Your task to perform on an android device: toggle notifications settings in the gmail app Image 0: 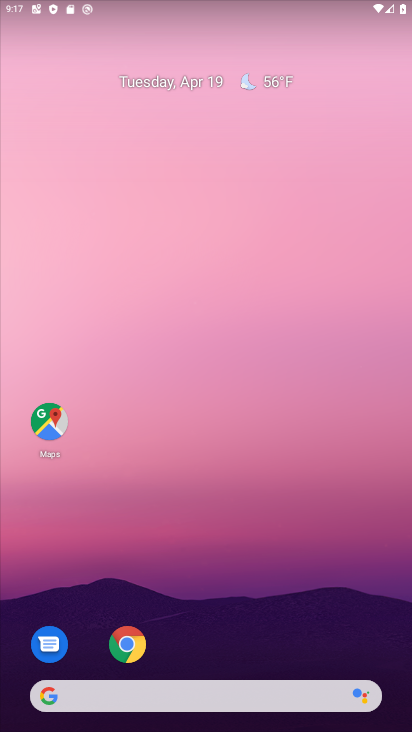
Step 0: drag from (197, 555) to (188, 207)
Your task to perform on an android device: toggle notifications settings in the gmail app Image 1: 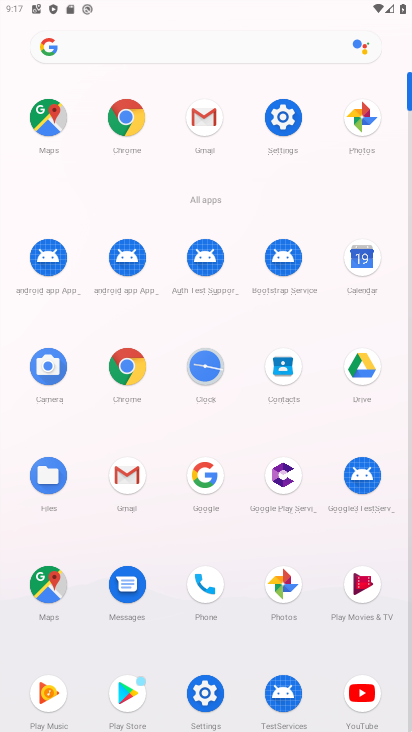
Step 1: click (198, 105)
Your task to perform on an android device: toggle notifications settings in the gmail app Image 2: 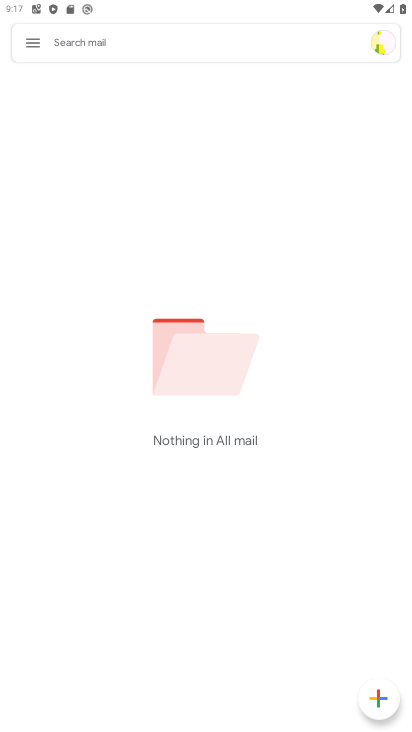
Step 2: click (34, 48)
Your task to perform on an android device: toggle notifications settings in the gmail app Image 3: 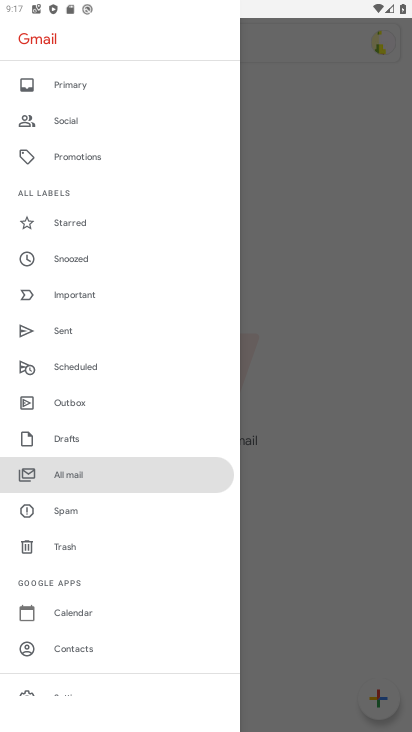
Step 3: drag from (106, 613) to (115, 412)
Your task to perform on an android device: toggle notifications settings in the gmail app Image 4: 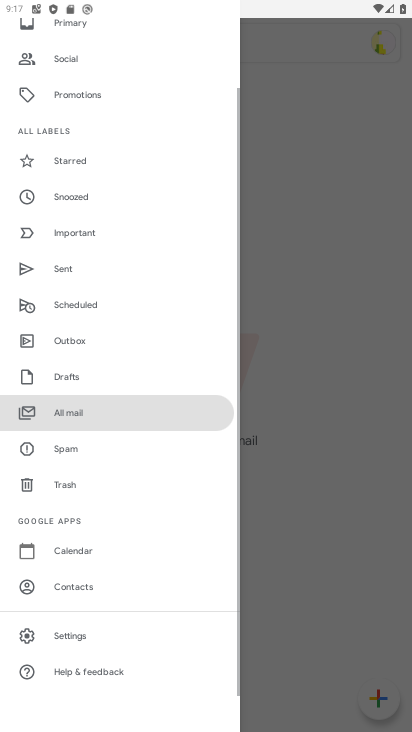
Step 4: click (53, 636)
Your task to perform on an android device: toggle notifications settings in the gmail app Image 5: 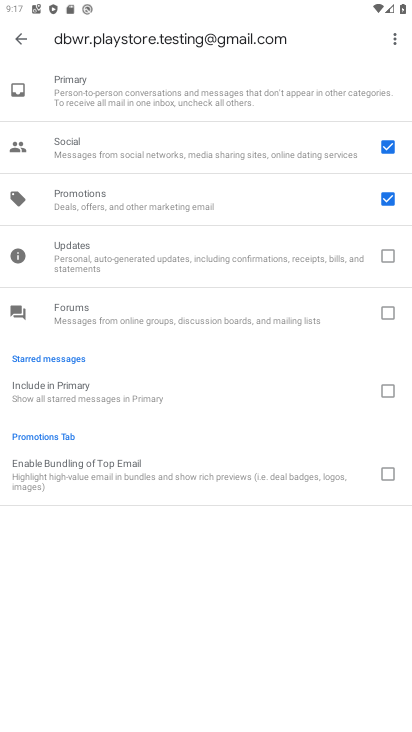
Step 5: click (17, 35)
Your task to perform on an android device: toggle notifications settings in the gmail app Image 6: 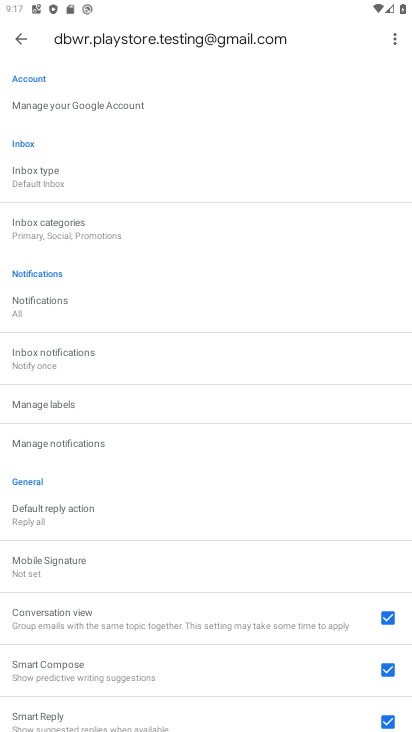
Step 6: click (79, 433)
Your task to perform on an android device: toggle notifications settings in the gmail app Image 7: 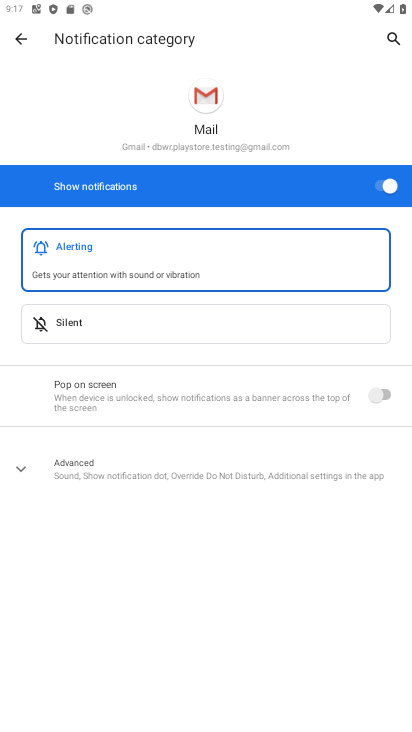
Step 7: click (369, 181)
Your task to perform on an android device: toggle notifications settings in the gmail app Image 8: 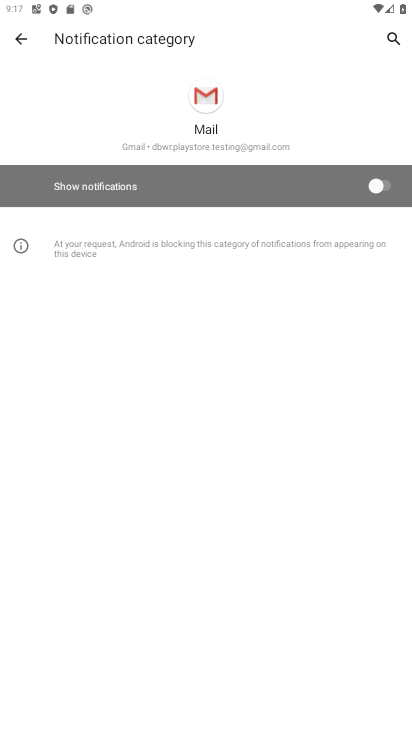
Step 8: task complete